Your task to perform on an android device: Play the last video I watched on Youtube Image 0: 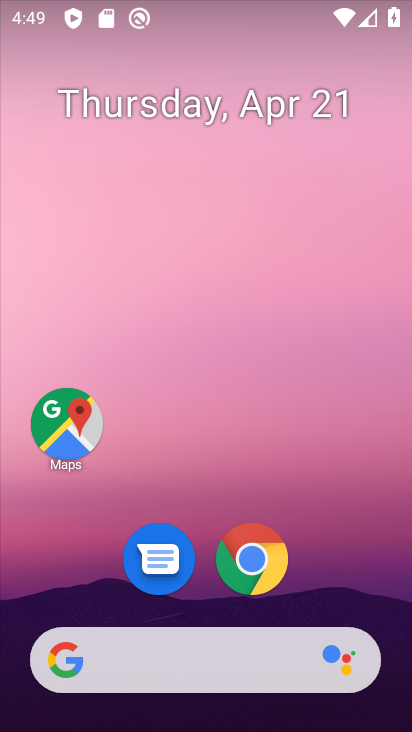
Step 0: drag from (321, 561) to (389, 202)
Your task to perform on an android device: Play the last video I watched on Youtube Image 1: 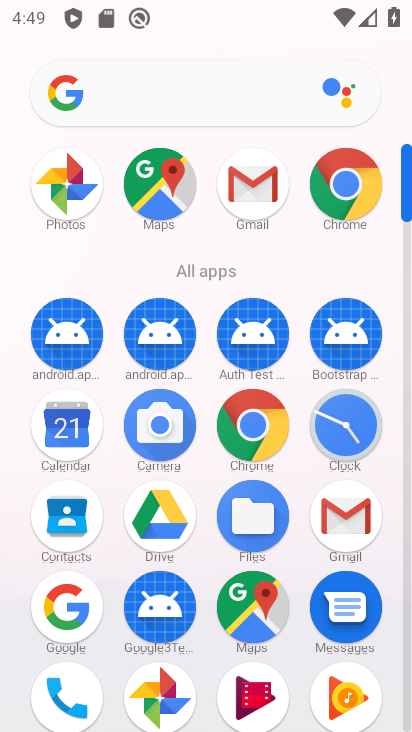
Step 1: drag from (396, 650) to (411, 393)
Your task to perform on an android device: Play the last video I watched on Youtube Image 2: 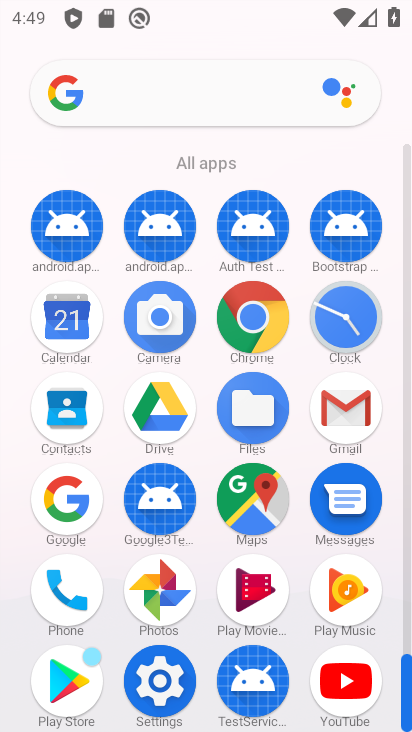
Step 2: click (353, 694)
Your task to perform on an android device: Play the last video I watched on Youtube Image 3: 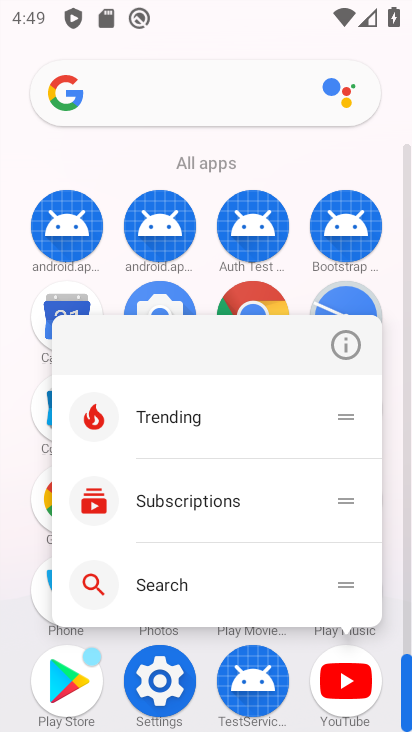
Step 3: click (348, 681)
Your task to perform on an android device: Play the last video I watched on Youtube Image 4: 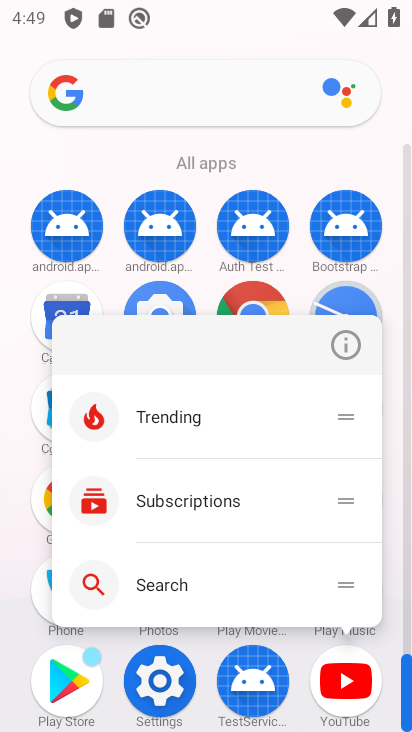
Step 4: click (348, 684)
Your task to perform on an android device: Play the last video I watched on Youtube Image 5: 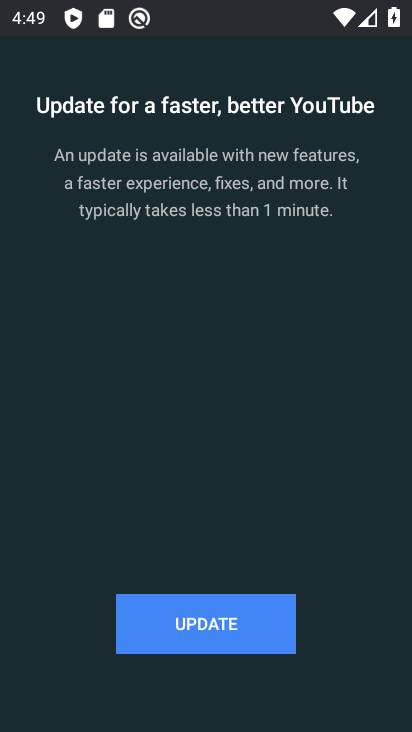
Step 5: click (348, 684)
Your task to perform on an android device: Play the last video I watched on Youtube Image 6: 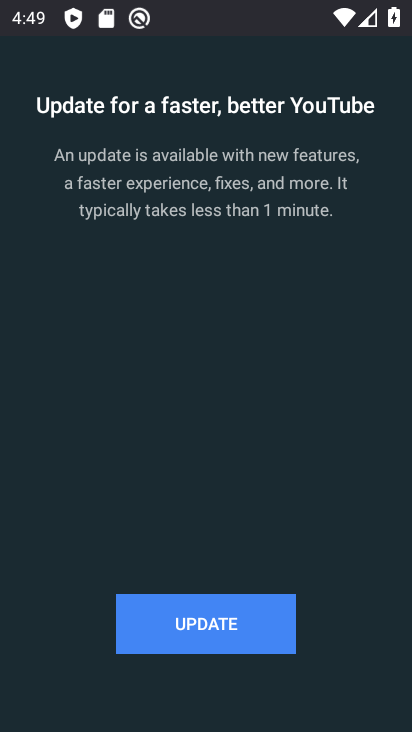
Step 6: click (266, 633)
Your task to perform on an android device: Play the last video I watched on Youtube Image 7: 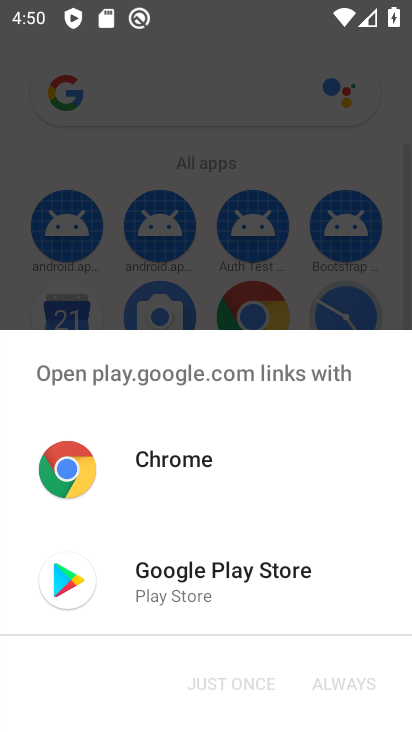
Step 7: click (221, 592)
Your task to perform on an android device: Play the last video I watched on Youtube Image 8: 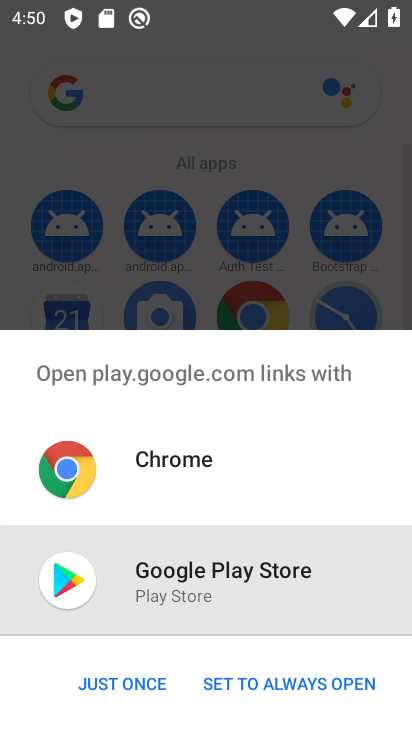
Step 8: click (121, 686)
Your task to perform on an android device: Play the last video I watched on Youtube Image 9: 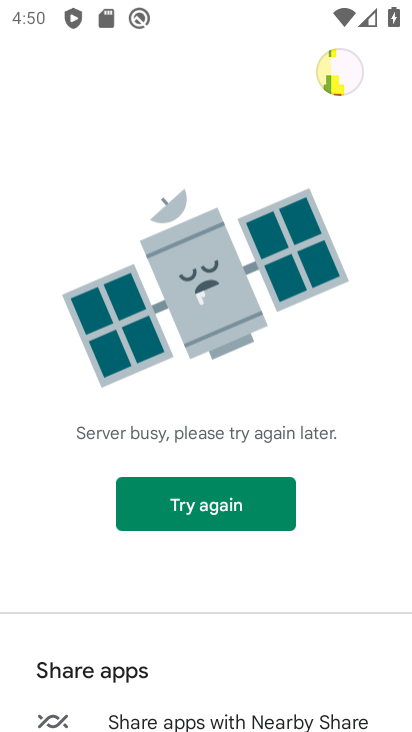
Step 9: click (224, 495)
Your task to perform on an android device: Play the last video I watched on Youtube Image 10: 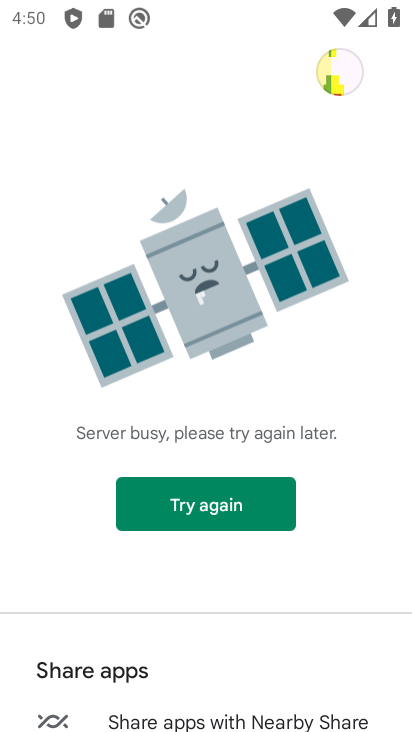
Step 10: click (224, 495)
Your task to perform on an android device: Play the last video I watched on Youtube Image 11: 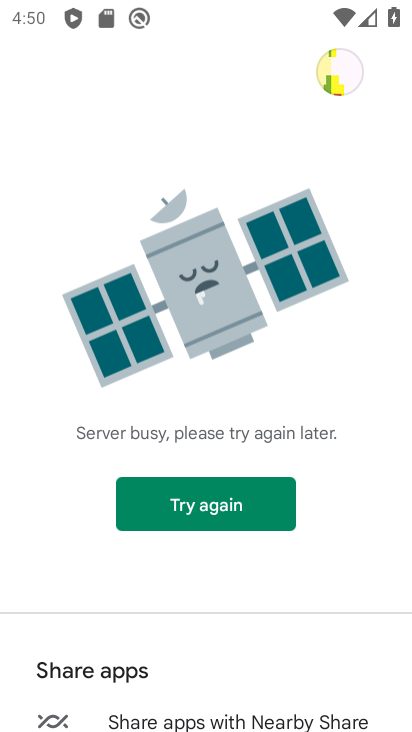
Step 11: click (224, 494)
Your task to perform on an android device: Play the last video I watched on Youtube Image 12: 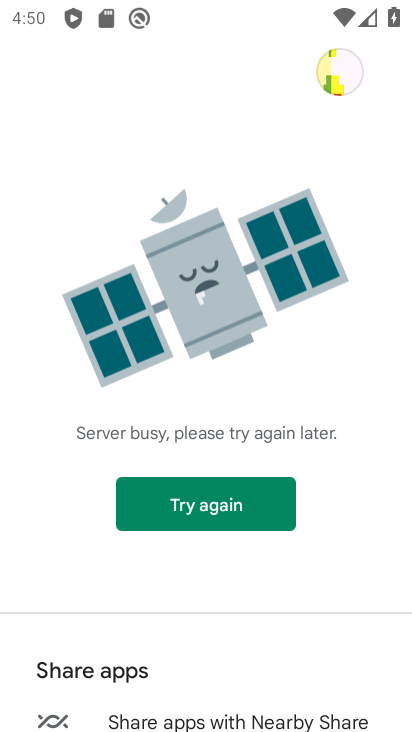
Step 12: click (228, 510)
Your task to perform on an android device: Play the last video I watched on Youtube Image 13: 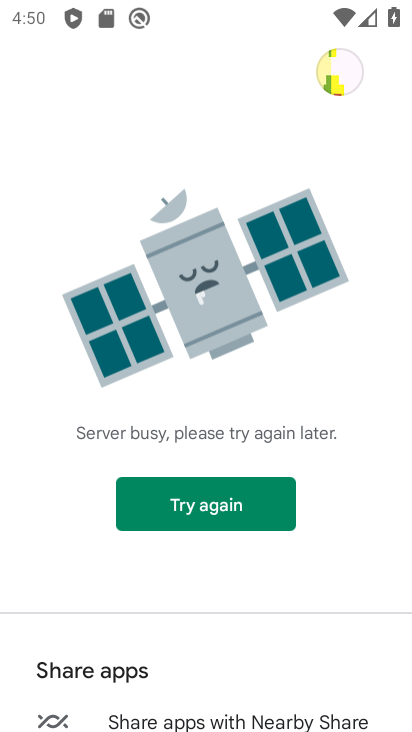
Step 13: task complete